Your task to perform on an android device: Is it going to rain today? Image 0: 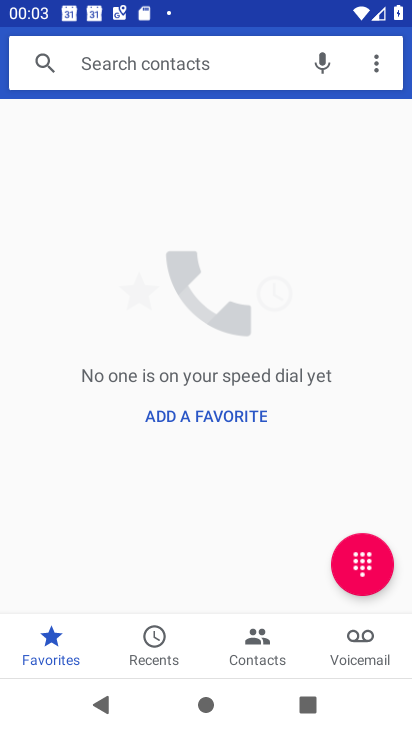
Step 0: press home button
Your task to perform on an android device: Is it going to rain today? Image 1: 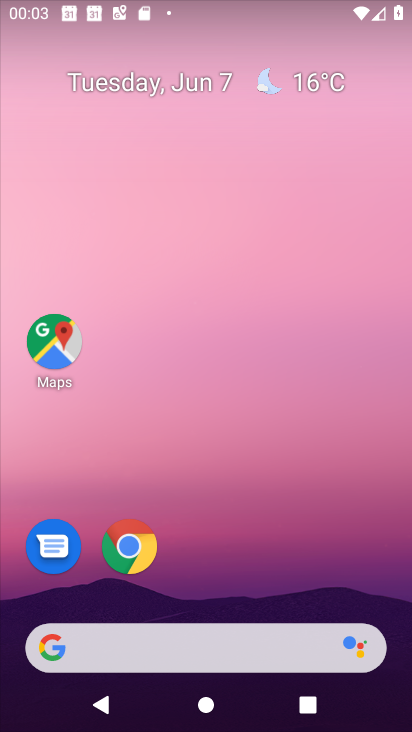
Step 1: click (287, 81)
Your task to perform on an android device: Is it going to rain today? Image 2: 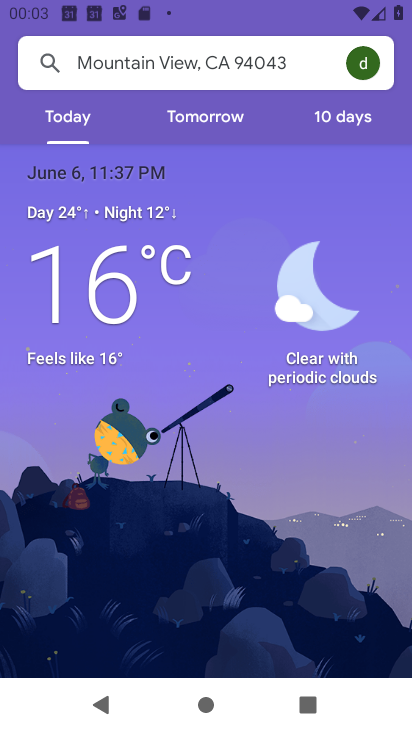
Step 2: task complete